Your task to perform on an android device: Go to display settings Image 0: 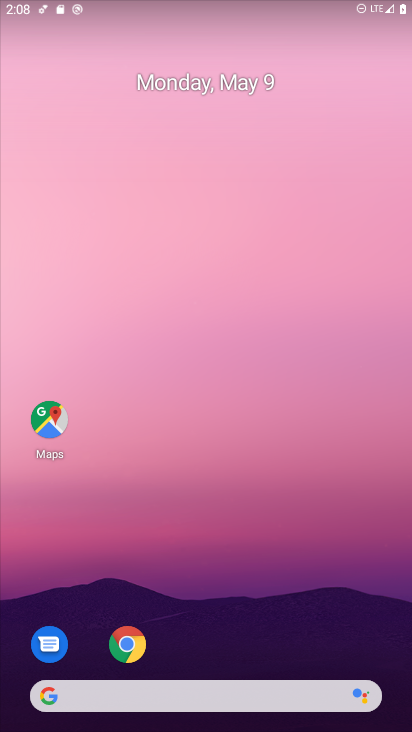
Step 0: drag from (267, 312) to (228, 65)
Your task to perform on an android device: Go to display settings Image 1: 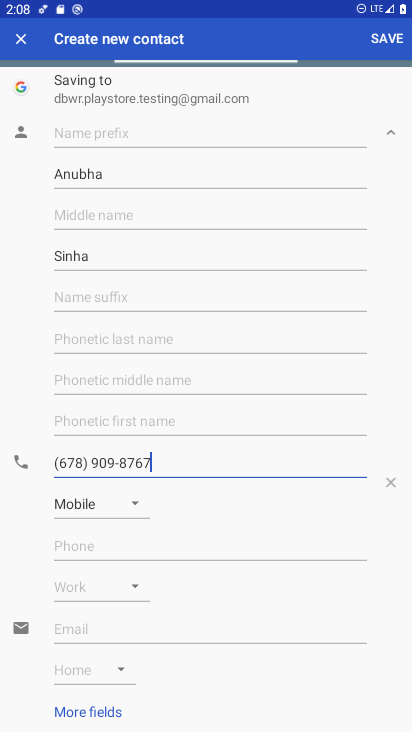
Step 1: press home button
Your task to perform on an android device: Go to display settings Image 2: 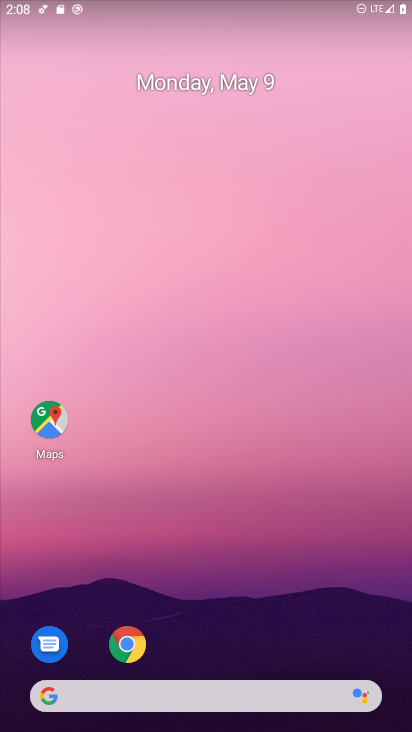
Step 2: drag from (262, 631) to (268, 115)
Your task to perform on an android device: Go to display settings Image 3: 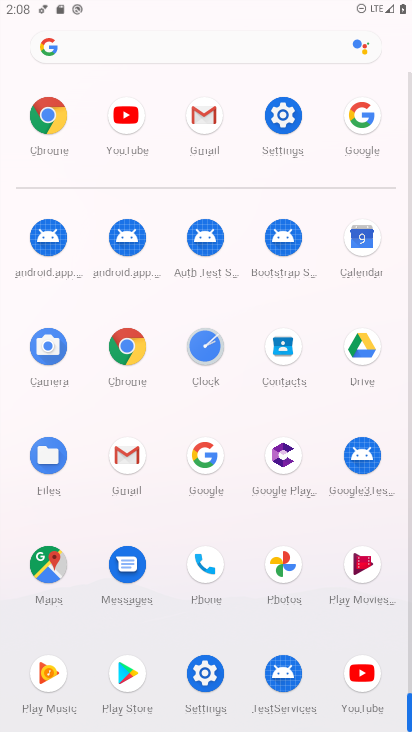
Step 3: click (288, 142)
Your task to perform on an android device: Go to display settings Image 4: 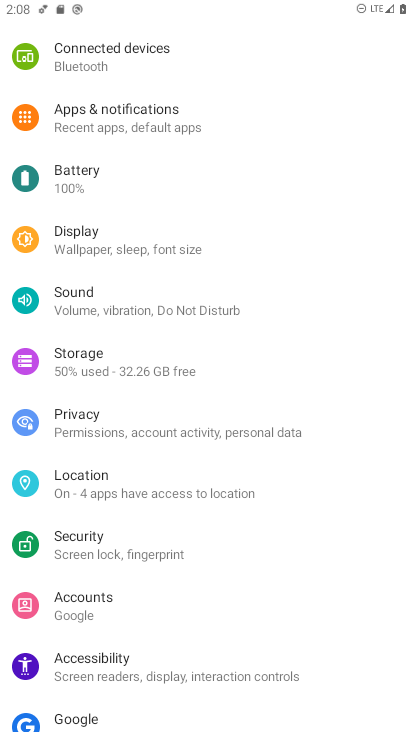
Step 4: click (162, 261)
Your task to perform on an android device: Go to display settings Image 5: 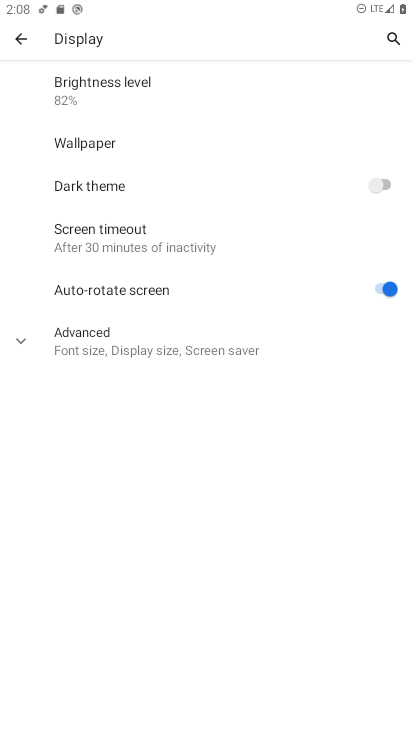
Step 5: task complete